Your task to perform on an android device: Turn on the flashlight Image 0: 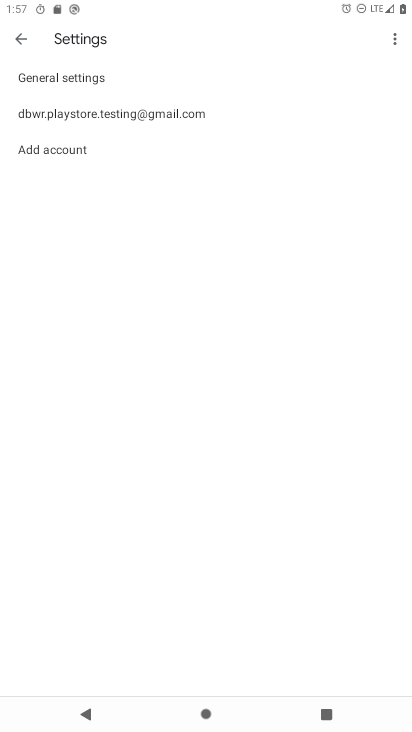
Step 0: press home button
Your task to perform on an android device: Turn on the flashlight Image 1: 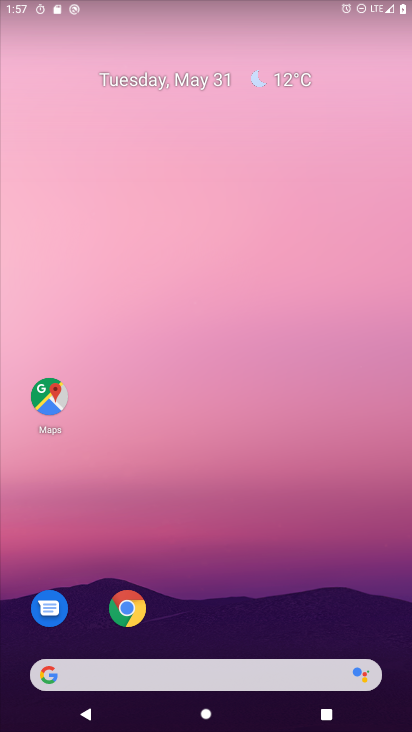
Step 1: task complete